Your task to perform on an android device: turn on showing notifications on the lock screen Image 0: 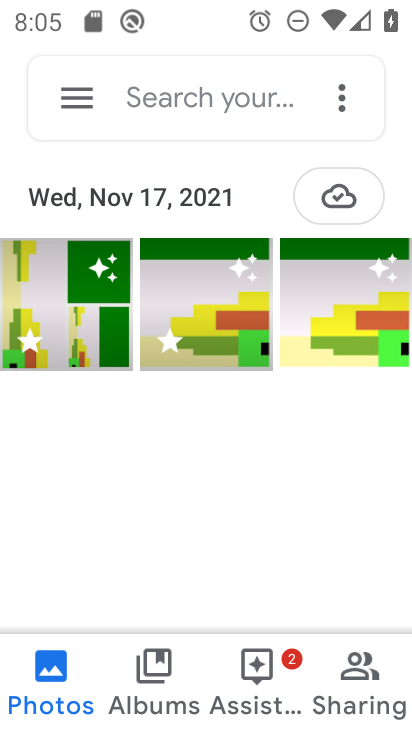
Step 0: press home button
Your task to perform on an android device: turn on showing notifications on the lock screen Image 1: 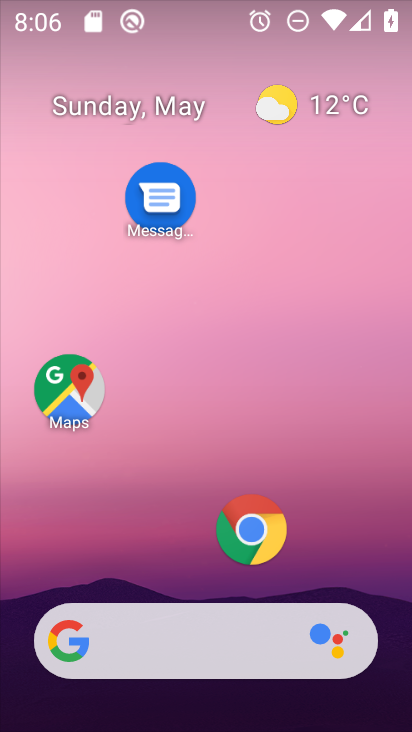
Step 1: drag from (207, 578) to (217, 105)
Your task to perform on an android device: turn on showing notifications on the lock screen Image 2: 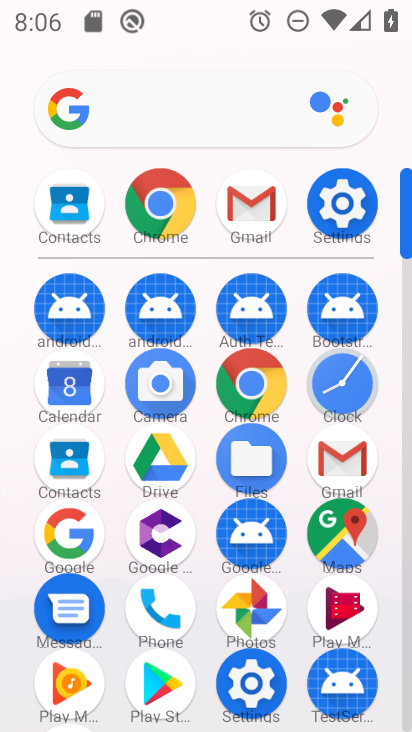
Step 2: click (338, 199)
Your task to perform on an android device: turn on showing notifications on the lock screen Image 3: 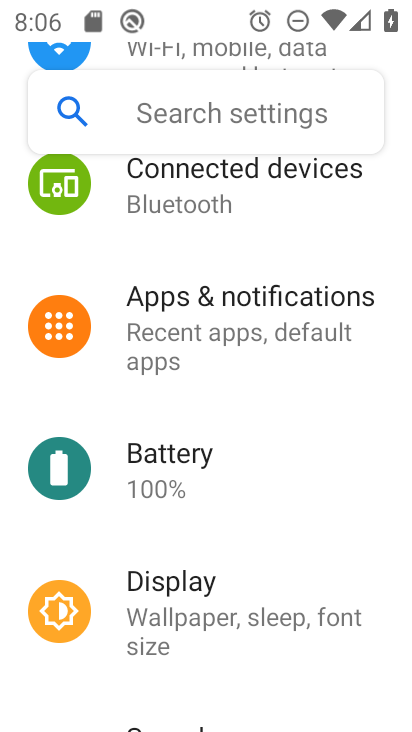
Step 3: click (232, 325)
Your task to perform on an android device: turn on showing notifications on the lock screen Image 4: 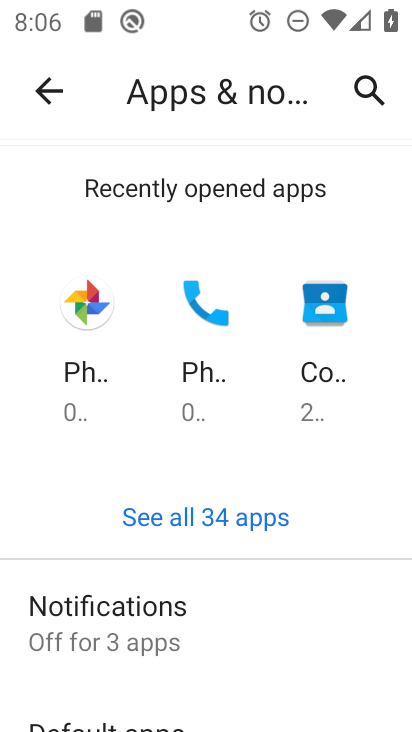
Step 4: click (204, 621)
Your task to perform on an android device: turn on showing notifications on the lock screen Image 5: 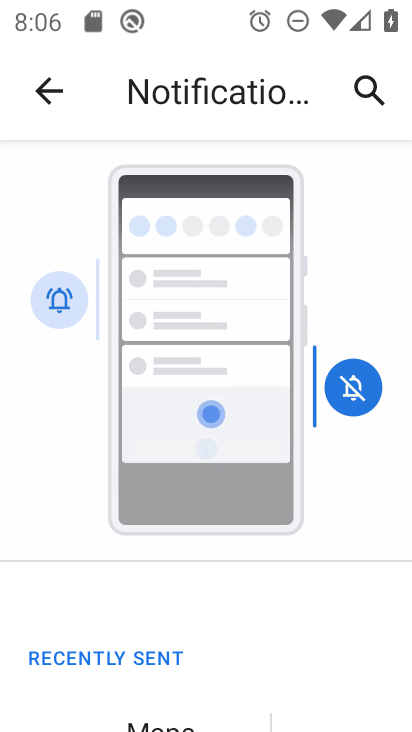
Step 5: drag from (242, 683) to (247, 146)
Your task to perform on an android device: turn on showing notifications on the lock screen Image 6: 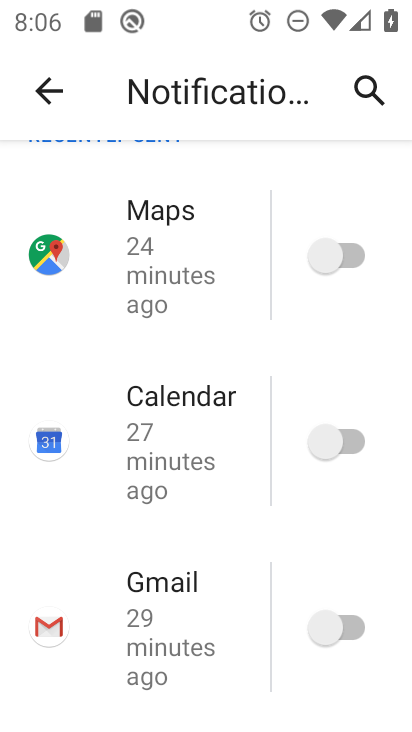
Step 6: drag from (237, 674) to (246, 181)
Your task to perform on an android device: turn on showing notifications on the lock screen Image 7: 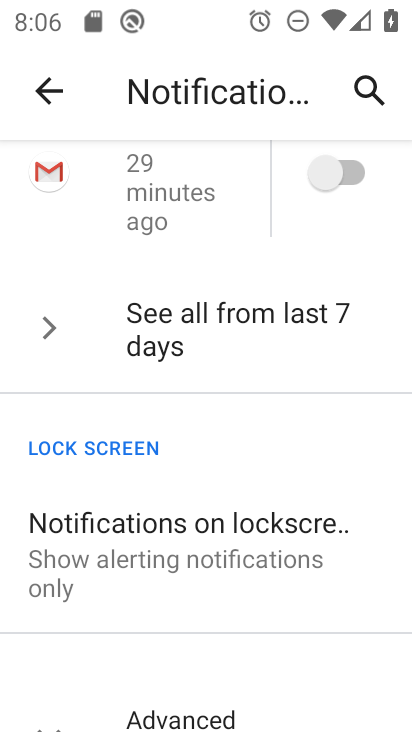
Step 7: click (259, 560)
Your task to perform on an android device: turn on showing notifications on the lock screen Image 8: 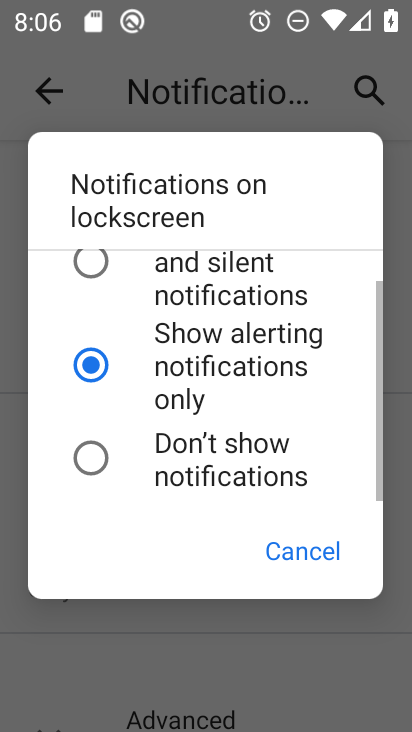
Step 8: click (88, 267)
Your task to perform on an android device: turn on showing notifications on the lock screen Image 9: 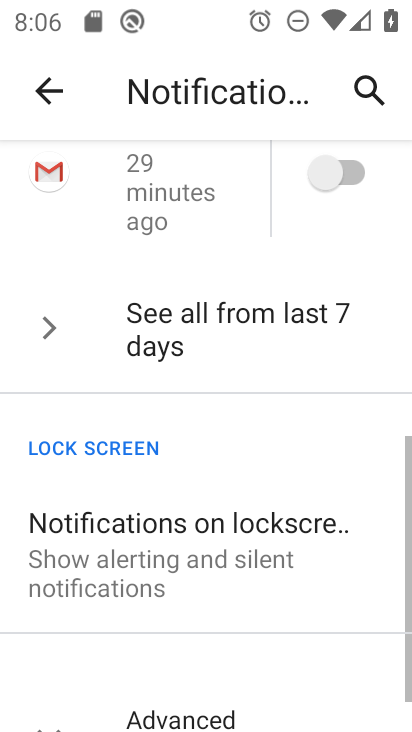
Step 9: task complete